Your task to perform on an android device: find photos in the google photos app Image 0: 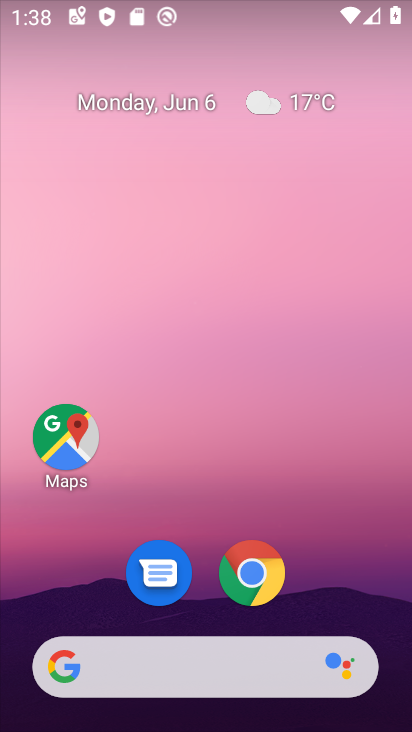
Step 0: drag from (203, 559) to (258, 43)
Your task to perform on an android device: find photos in the google photos app Image 1: 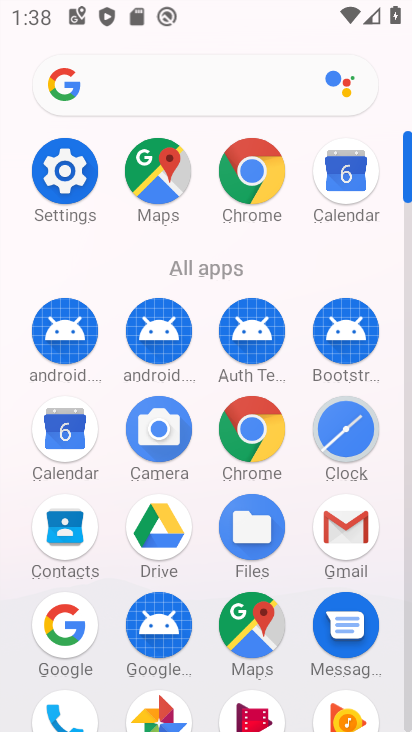
Step 1: click (152, 702)
Your task to perform on an android device: find photos in the google photos app Image 2: 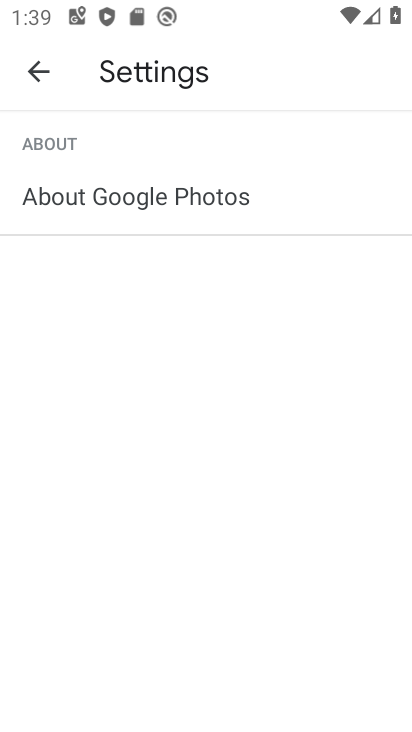
Step 2: press back button
Your task to perform on an android device: find photos in the google photos app Image 3: 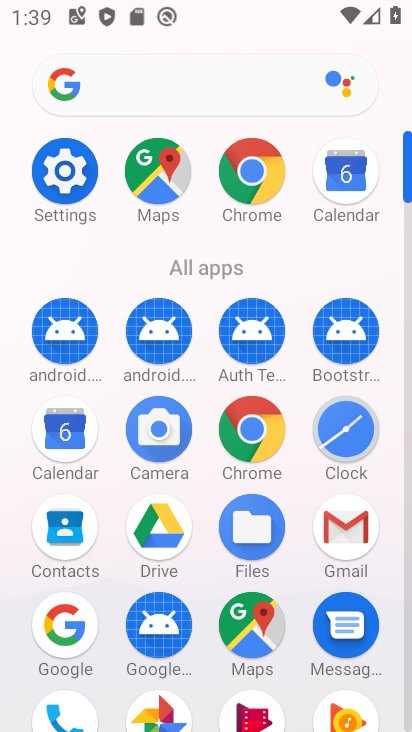
Step 3: click (147, 709)
Your task to perform on an android device: find photos in the google photos app Image 4: 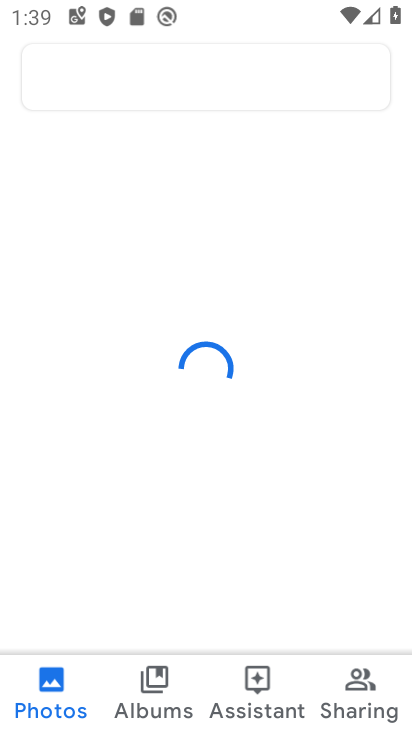
Step 4: click (53, 688)
Your task to perform on an android device: find photos in the google photos app Image 5: 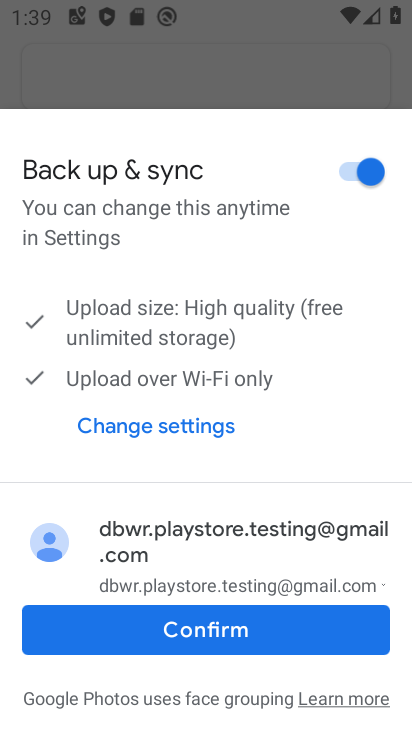
Step 5: task complete